Your task to perform on an android device: change keyboard looks Image 0: 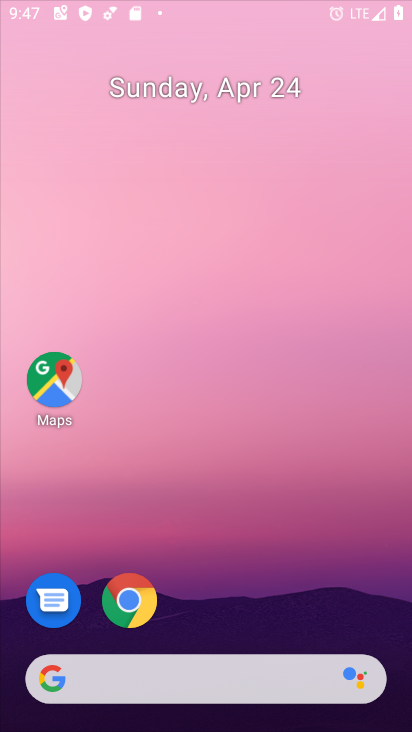
Step 0: click (167, 491)
Your task to perform on an android device: change keyboard looks Image 1: 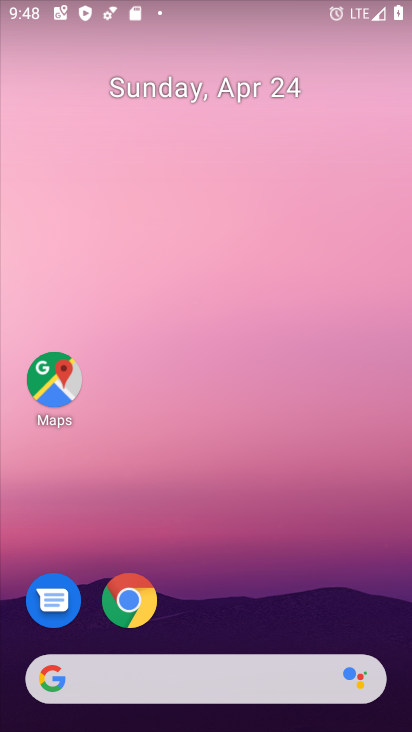
Step 1: drag from (219, 630) to (284, 45)
Your task to perform on an android device: change keyboard looks Image 2: 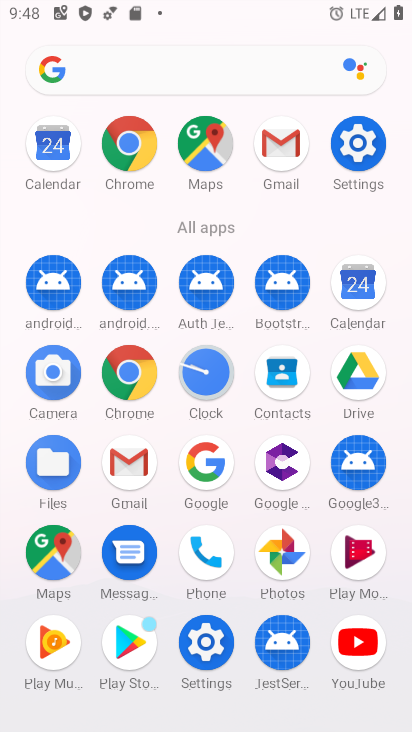
Step 2: click (194, 651)
Your task to perform on an android device: change keyboard looks Image 3: 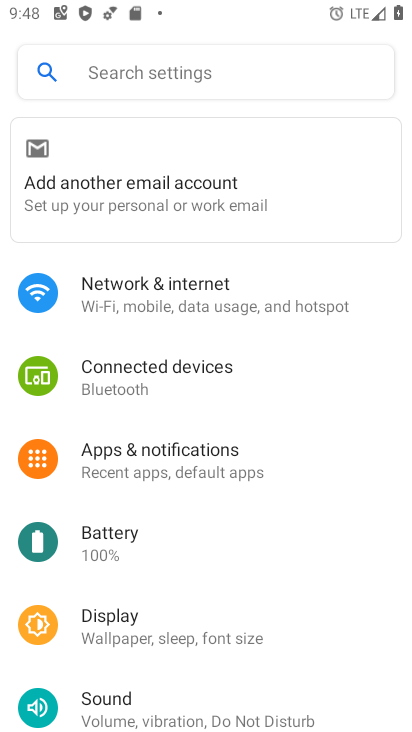
Step 3: drag from (192, 580) to (282, 128)
Your task to perform on an android device: change keyboard looks Image 4: 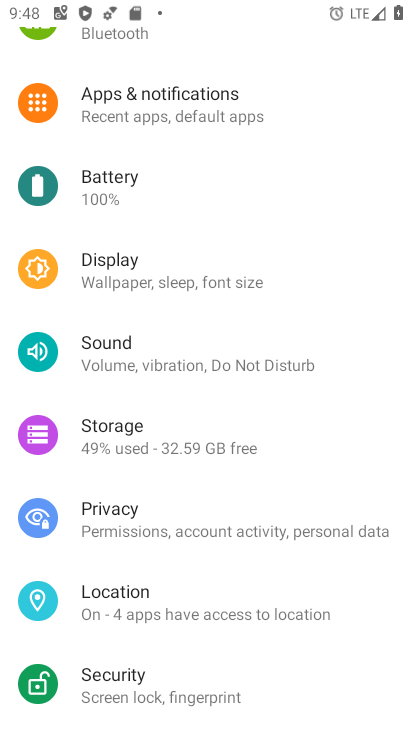
Step 4: drag from (224, 611) to (295, 53)
Your task to perform on an android device: change keyboard looks Image 5: 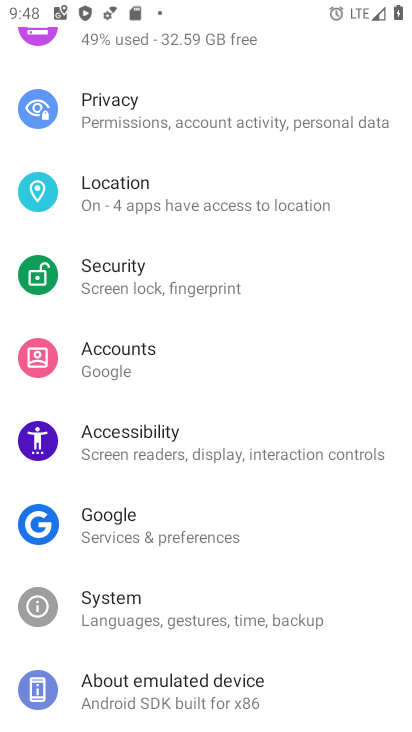
Step 5: drag from (190, 570) to (252, 100)
Your task to perform on an android device: change keyboard looks Image 6: 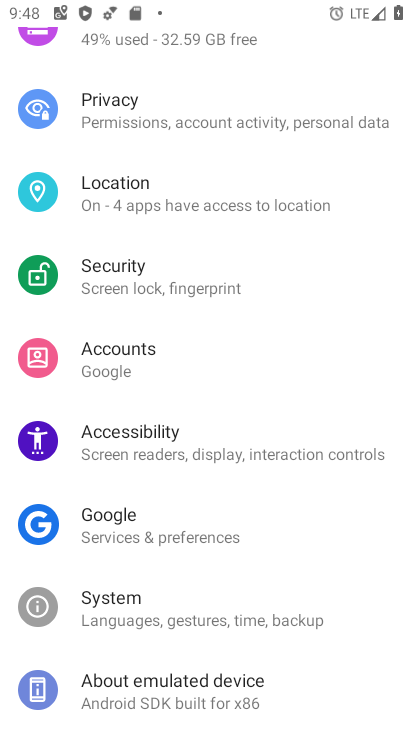
Step 6: click (136, 606)
Your task to perform on an android device: change keyboard looks Image 7: 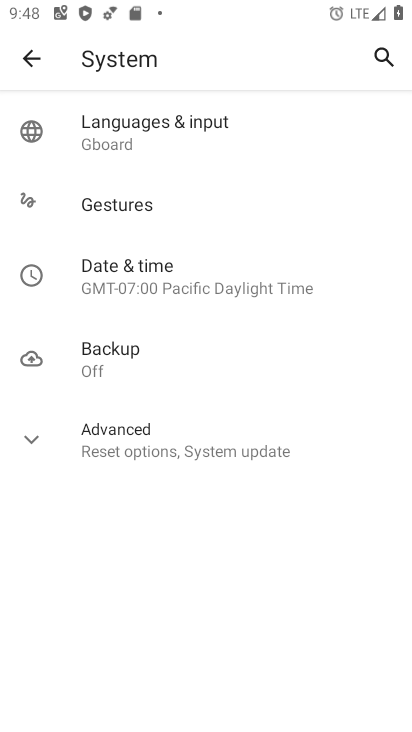
Step 7: click (134, 147)
Your task to perform on an android device: change keyboard looks Image 8: 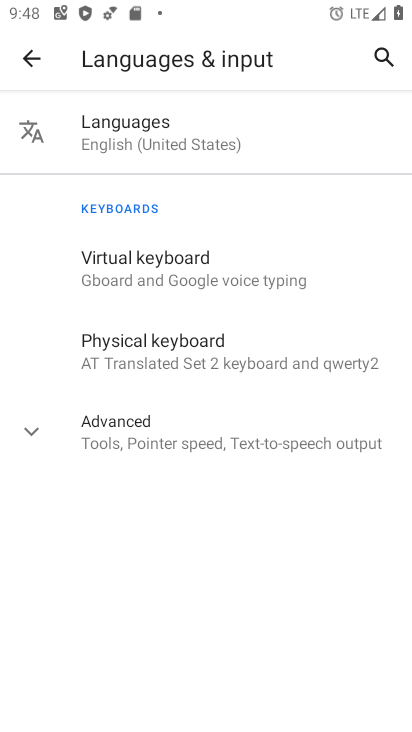
Step 8: click (151, 280)
Your task to perform on an android device: change keyboard looks Image 9: 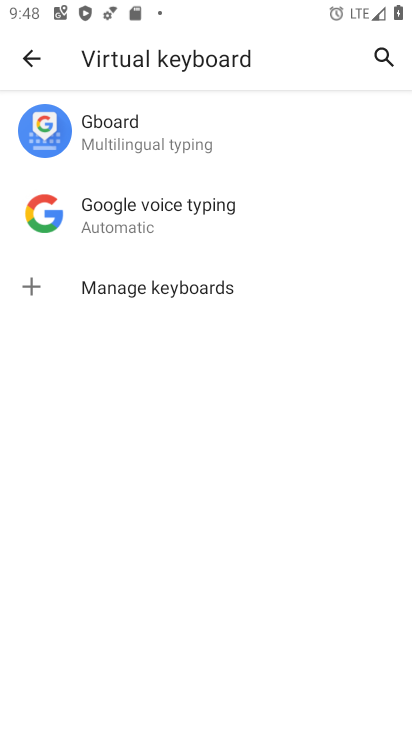
Step 9: click (146, 136)
Your task to perform on an android device: change keyboard looks Image 10: 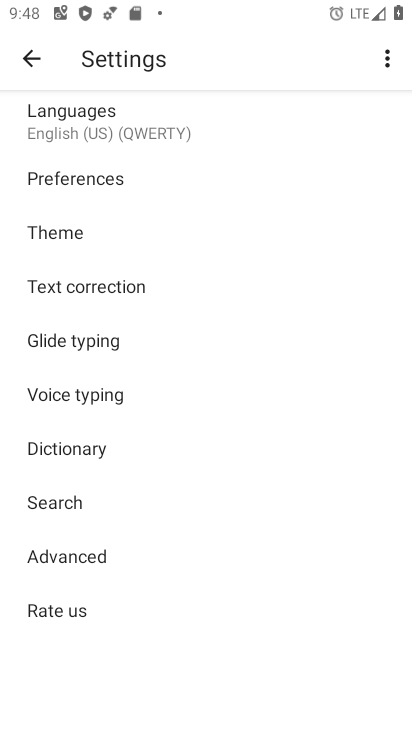
Step 10: click (78, 233)
Your task to perform on an android device: change keyboard looks Image 11: 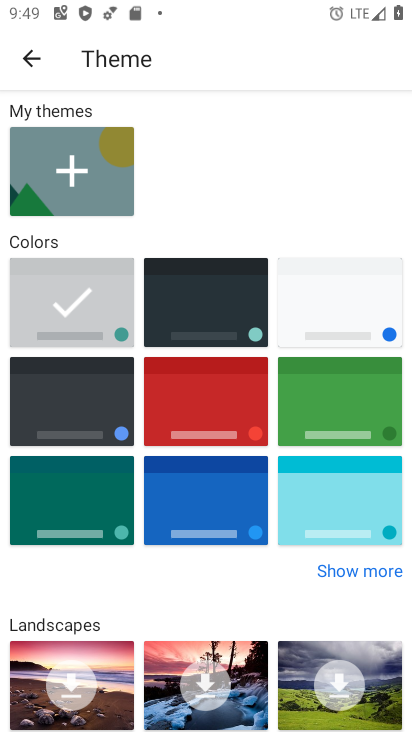
Step 11: click (304, 381)
Your task to perform on an android device: change keyboard looks Image 12: 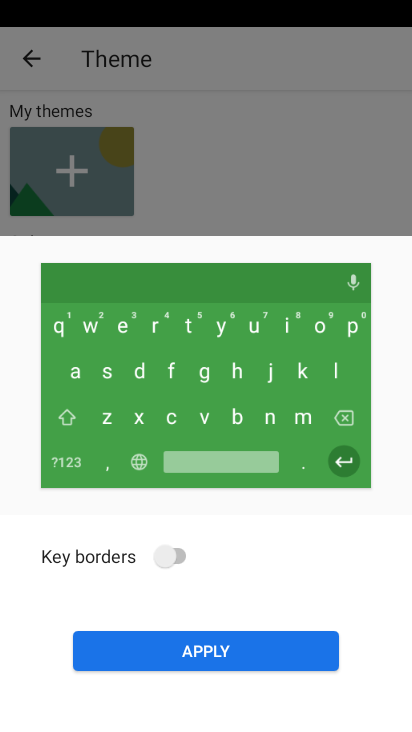
Step 12: click (201, 650)
Your task to perform on an android device: change keyboard looks Image 13: 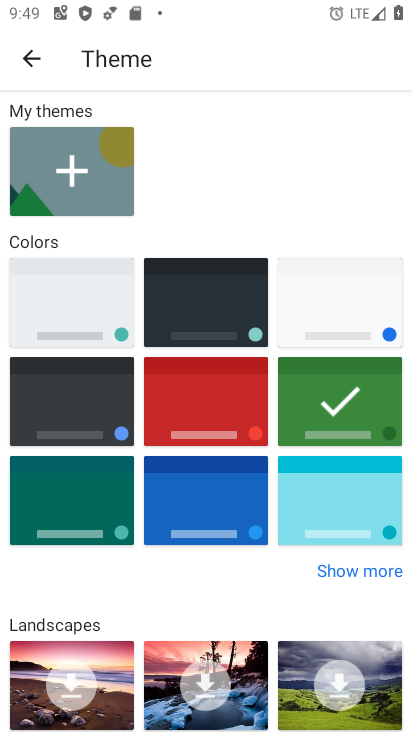
Step 13: task complete